Your task to perform on an android device: Search for pizza restaurants on Maps Image 0: 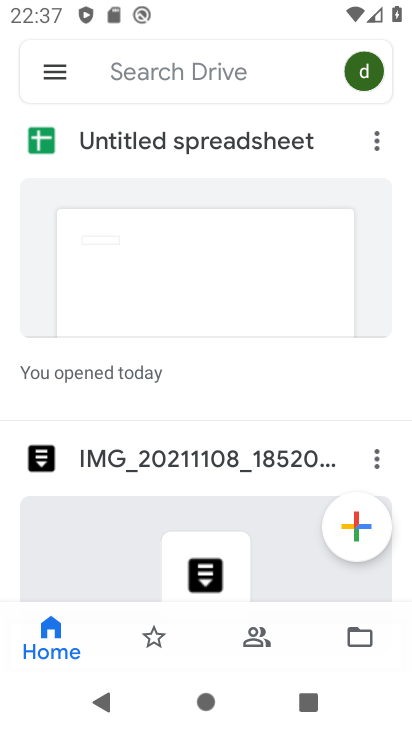
Step 0: drag from (193, 581) to (245, 227)
Your task to perform on an android device: Search for pizza restaurants on Maps Image 1: 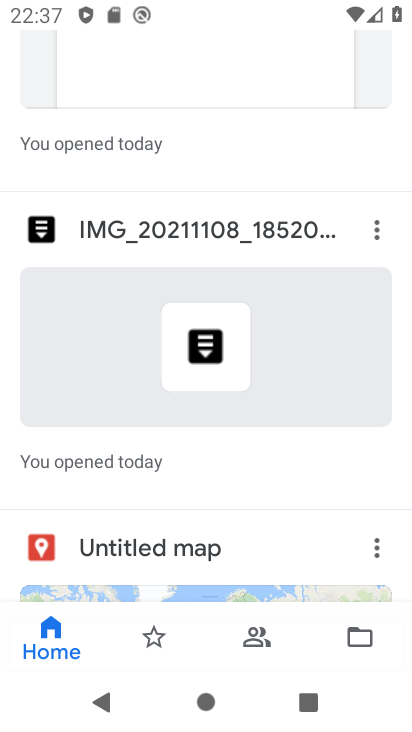
Step 1: drag from (280, 522) to (320, 241)
Your task to perform on an android device: Search for pizza restaurants on Maps Image 2: 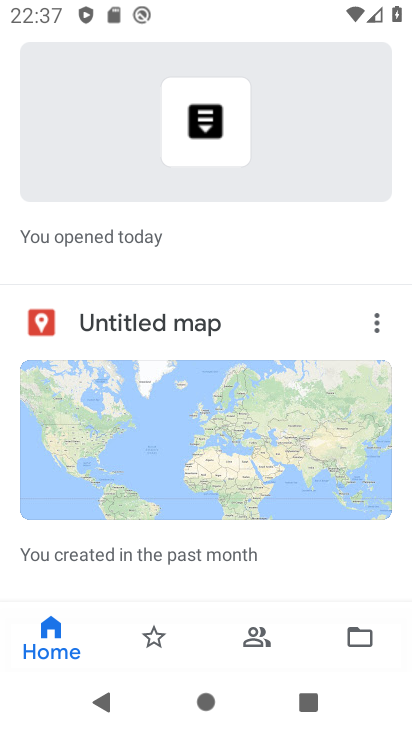
Step 2: drag from (265, 337) to (386, 581)
Your task to perform on an android device: Search for pizza restaurants on Maps Image 3: 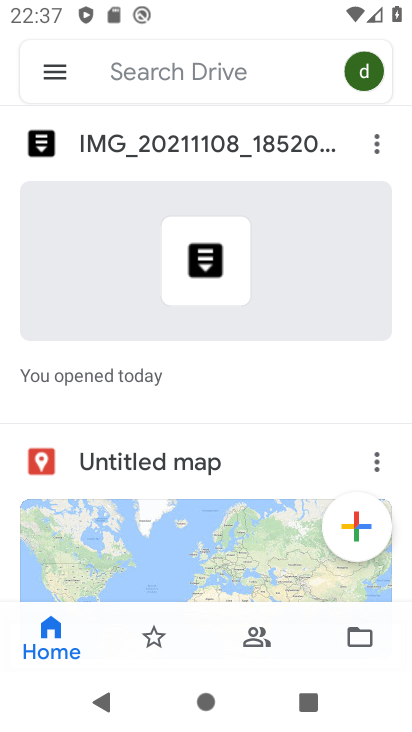
Step 3: press home button
Your task to perform on an android device: Search for pizza restaurants on Maps Image 4: 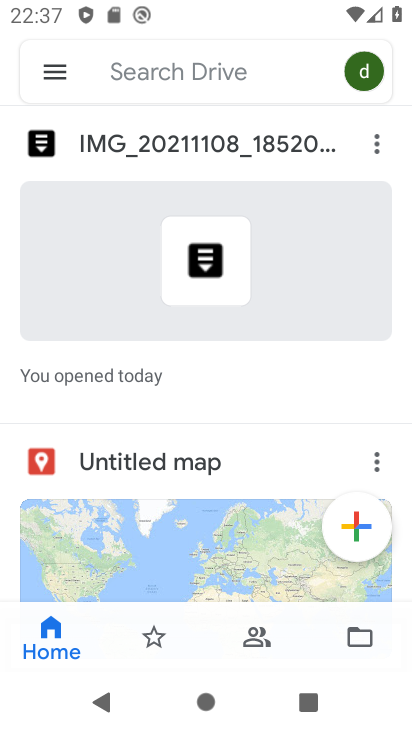
Step 4: click (379, 438)
Your task to perform on an android device: Search for pizza restaurants on Maps Image 5: 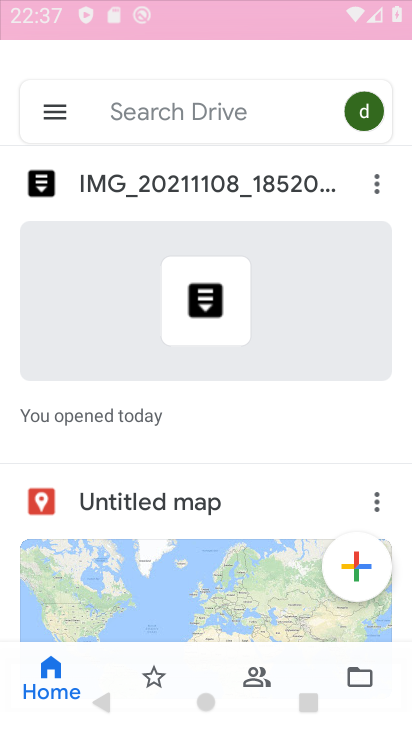
Step 5: drag from (257, 493) to (144, 5)
Your task to perform on an android device: Search for pizza restaurants on Maps Image 6: 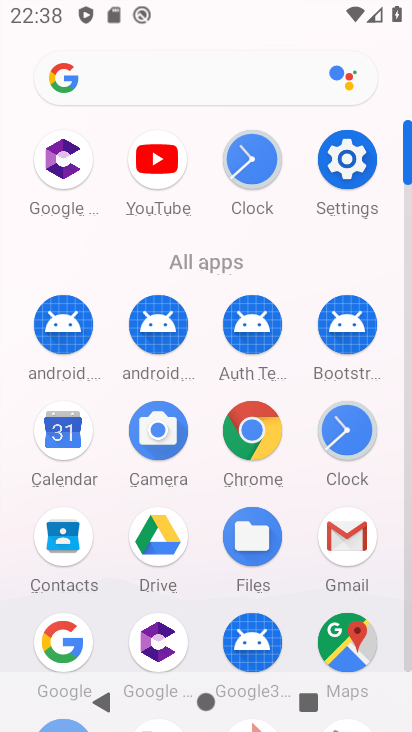
Step 6: click (150, 76)
Your task to perform on an android device: Search for pizza restaurants on Maps Image 7: 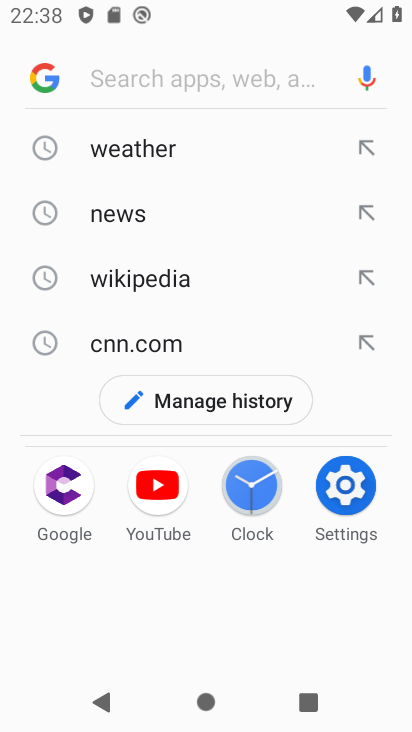
Step 7: press home button
Your task to perform on an android device: Search for pizza restaurants on Maps Image 8: 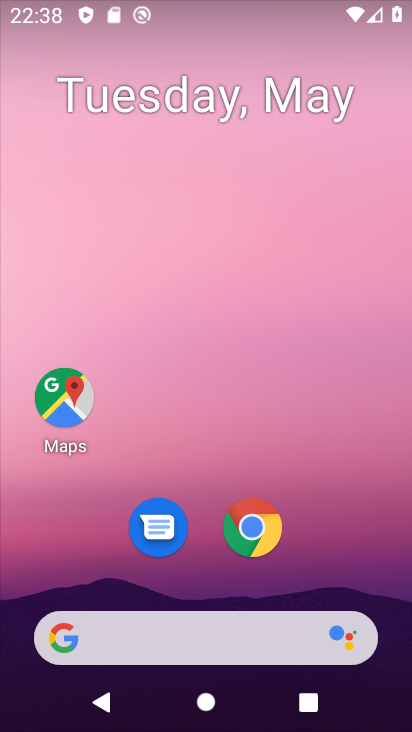
Step 8: drag from (278, 598) to (330, 125)
Your task to perform on an android device: Search for pizza restaurants on Maps Image 9: 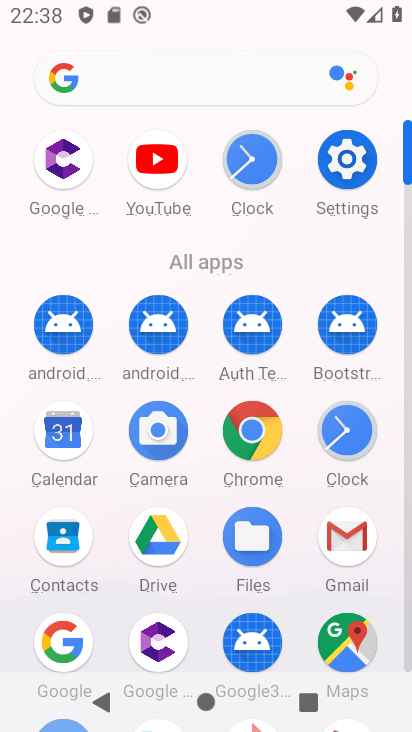
Step 9: click (347, 639)
Your task to perform on an android device: Search for pizza restaurants on Maps Image 10: 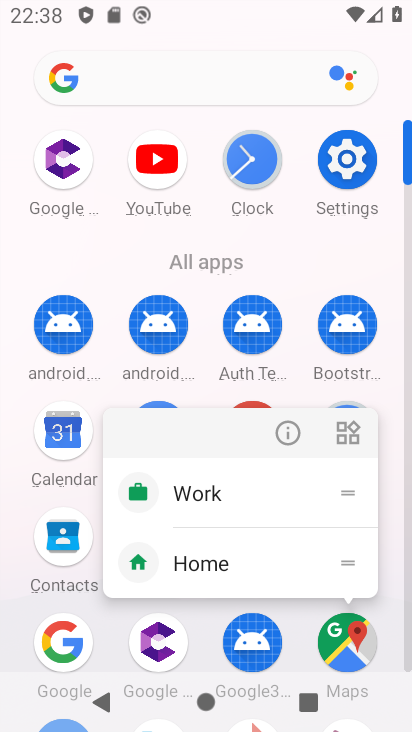
Step 10: click (285, 425)
Your task to perform on an android device: Search for pizza restaurants on Maps Image 11: 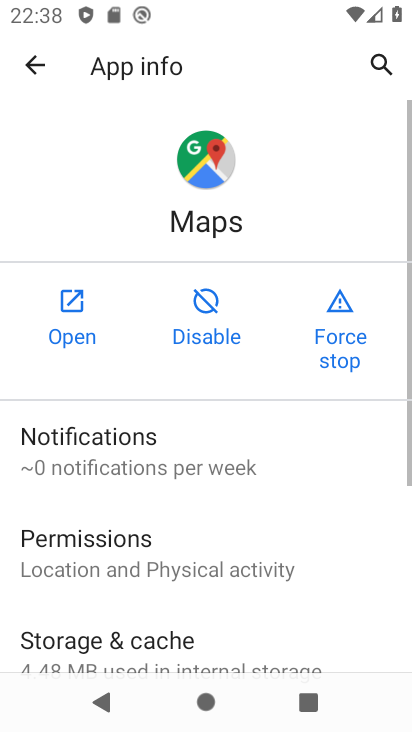
Step 11: click (108, 333)
Your task to perform on an android device: Search for pizza restaurants on Maps Image 12: 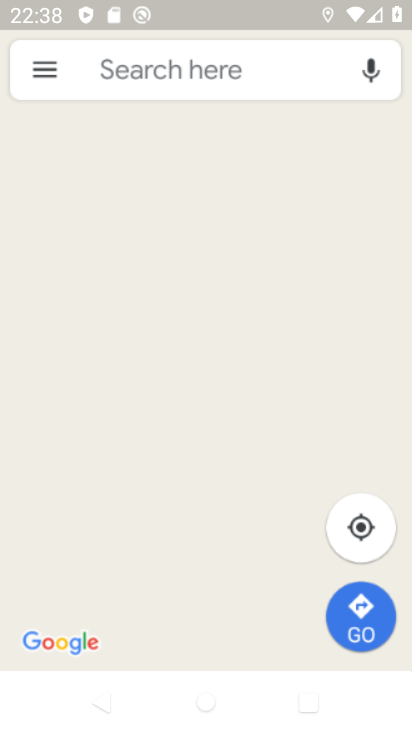
Step 12: click (158, 84)
Your task to perform on an android device: Search for pizza restaurants on Maps Image 13: 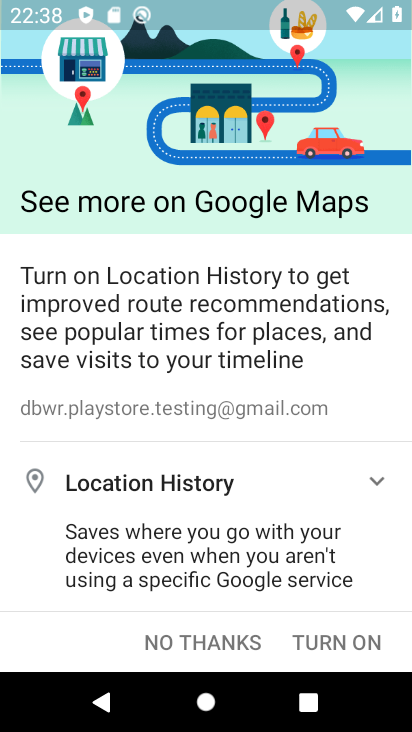
Step 13: type "ESPN.com"
Your task to perform on an android device: Search for pizza restaurants on Maps Image 14: 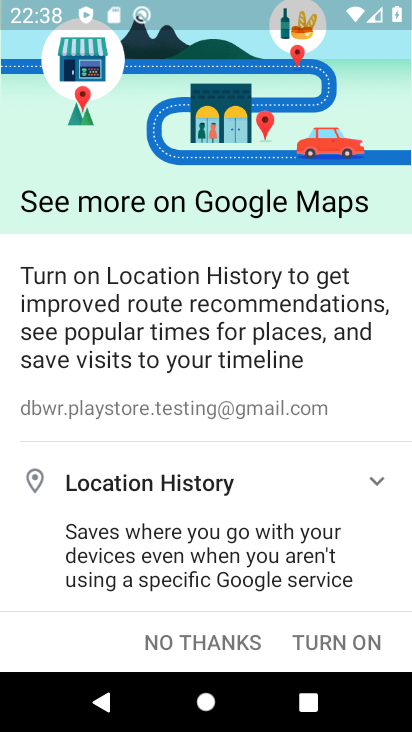
Step 14: click (184, 644)
Your task to perform on an android device: Search for pizza restaurants on Maps Image 15: 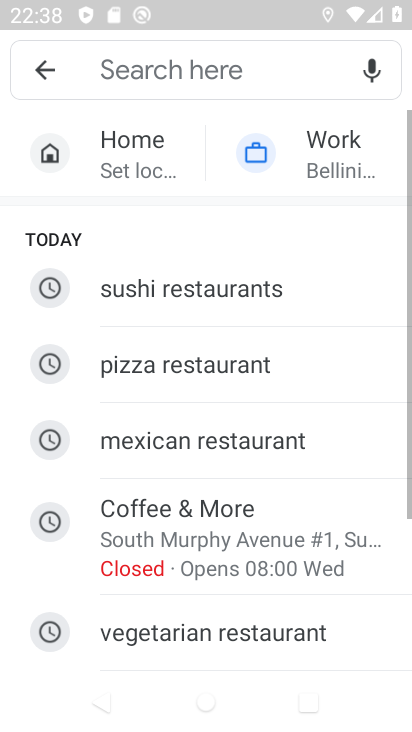
Step 15: click (106, 77)
Your task to perform on an android device: Search for pizza restaurants on Maps Image 16: 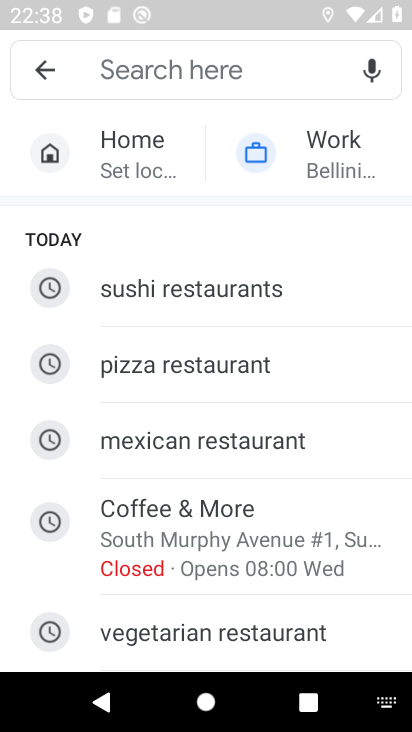
Step 16: click (95, 370)
Your task to perform on an android device: Search for pizza restaurants on Maps Image 17: 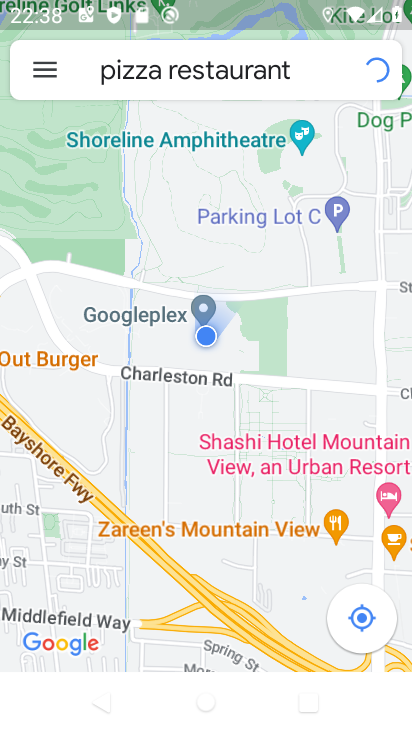
Step 17: task complete